Your task to perform on an android device: show emergency info Image 0: 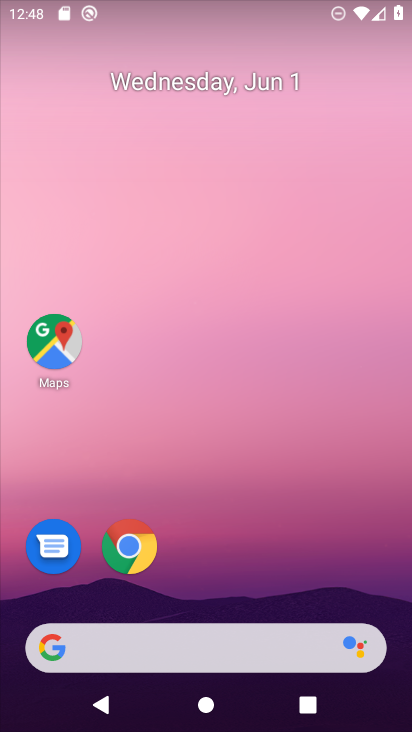
Step 0: drag from (268, 533) to (91, 66)
Your task to perform on an android device: show emergency info Image 1: 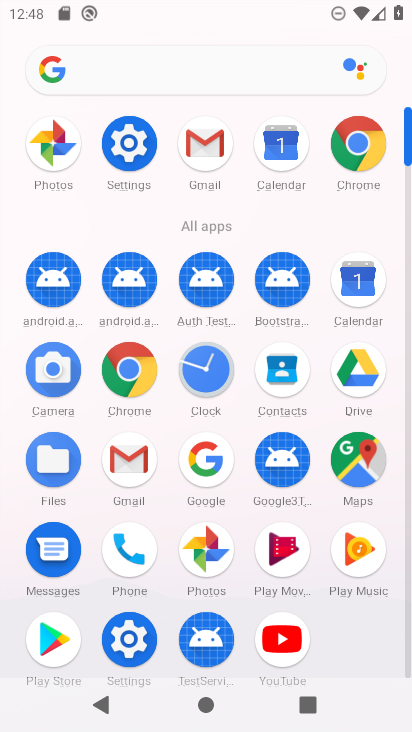
Step 1: click (124, 643)
Your task to perform on an android device: show emergency info Image 2: 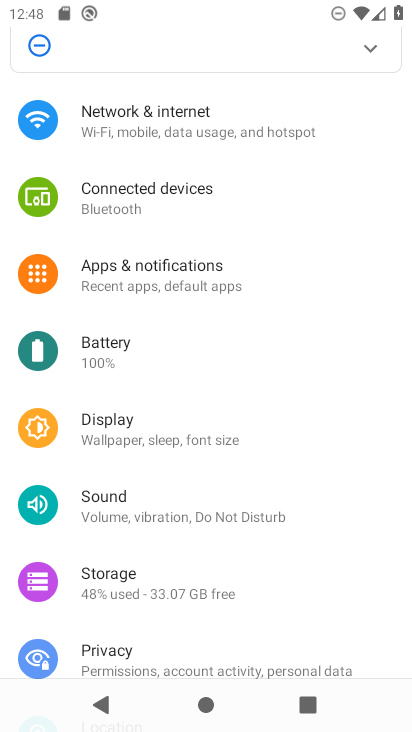
Step 2: drag from (124, 643) to (147, 153)
Your task to perform on an android device: show emergency info Image 3: 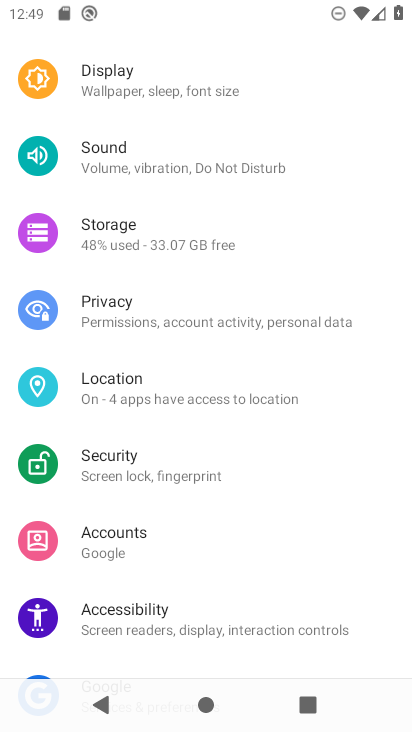
Step 3: drag from (185, 656) to (163, 164)
Your task to perform on an android device: show emergency info Image 4: 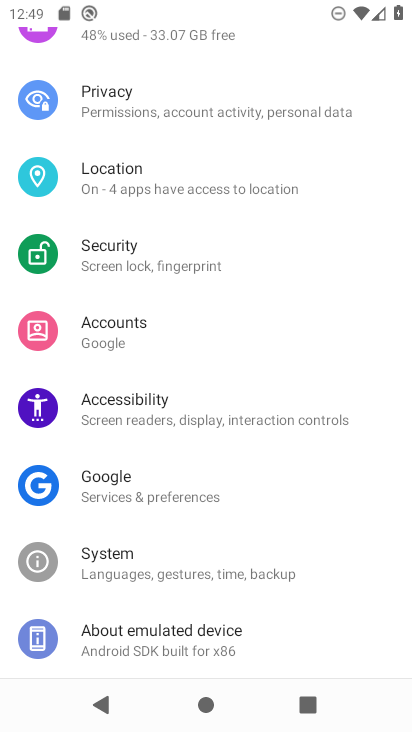
Step 4: click (137, 642)
Your task to perform on an android device: show emergency info Image 5: 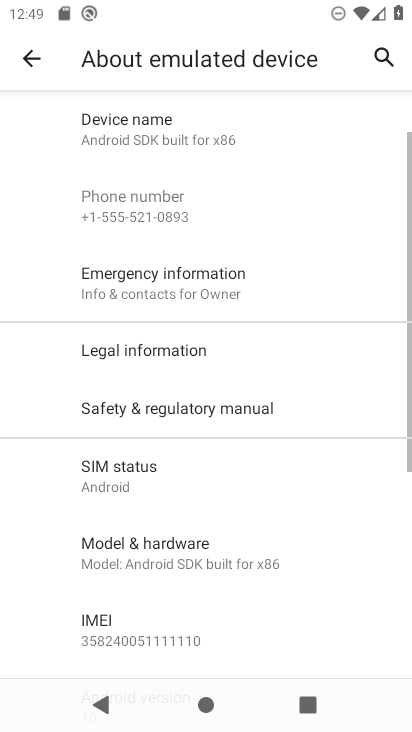
Step 5: click (217, 282)
Your task to perform on an android device: show emergency info Image 6: 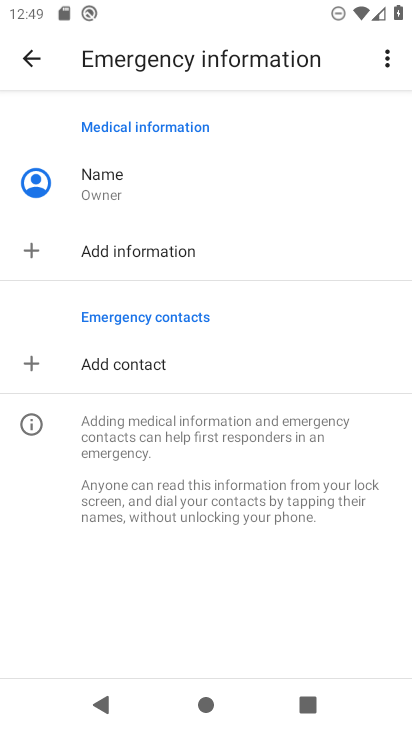
Step 6: task complete